Your task to perform on an android device: star an email in the gmail app Image 0: 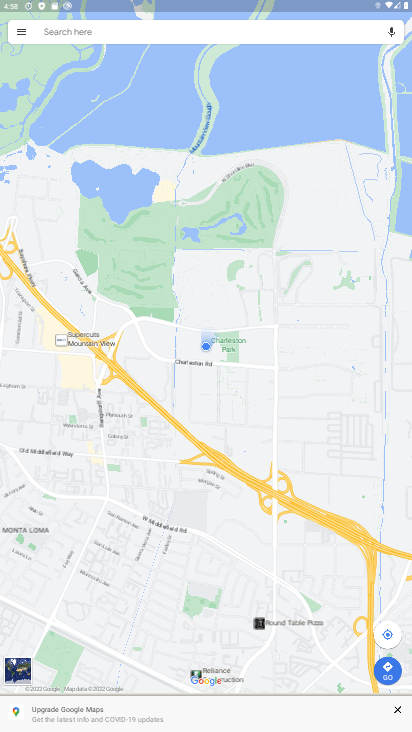
Step 0: press home button
Your task to perform on an android device: star an email in the gmail app Image 1: 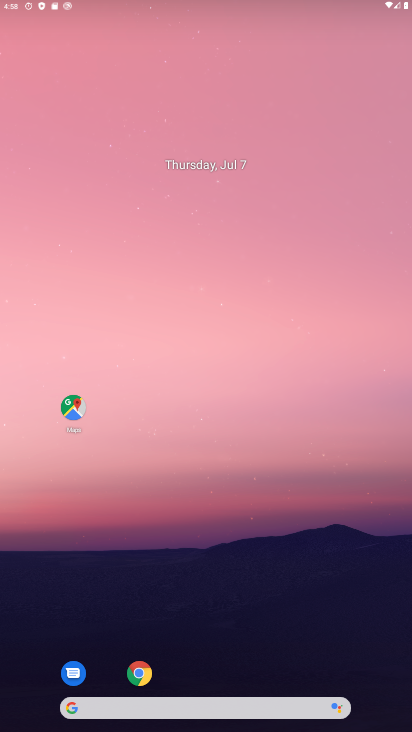
Step 1: drag from (267, 699) to (312, 40)
Your task to perform on an android device: star an email in the gmail app Image 2: 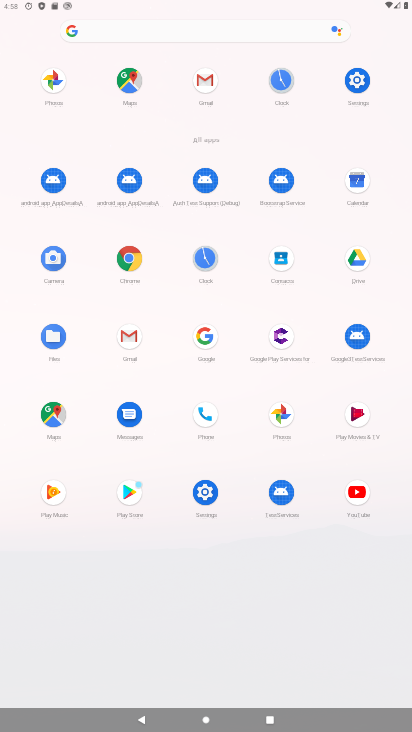
Step 2: click (128, 331)
Your task to perform on an android device: star an email in the gmail app Image 3: 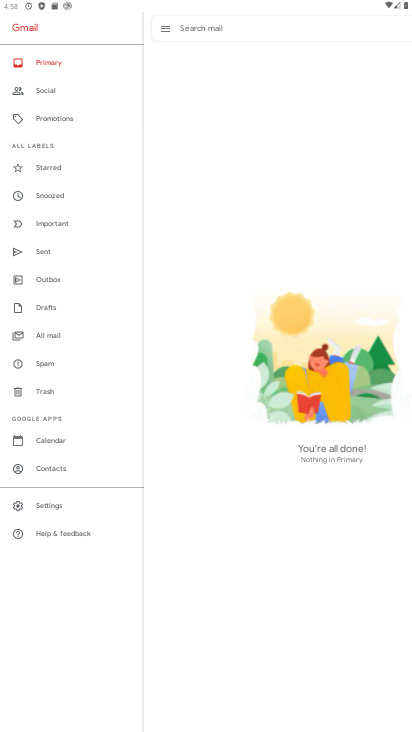
Step 3: click (54, 174)
Your task to perform on an android device: star an email in the gmail app Image 4: 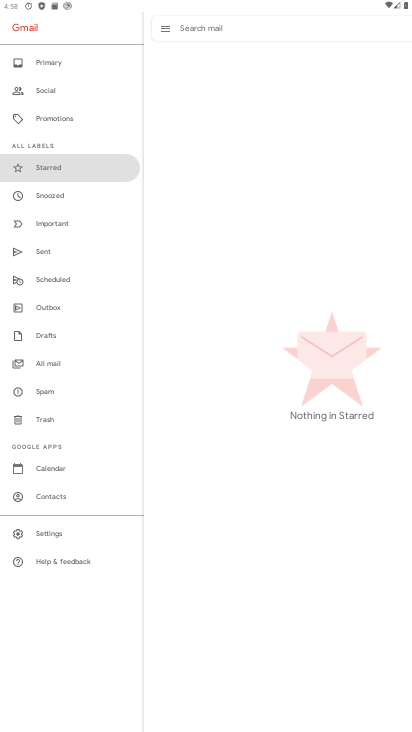
Step 4: task complete